Your task to perform on an android device: add a label to a message in the gmail app Image 0: 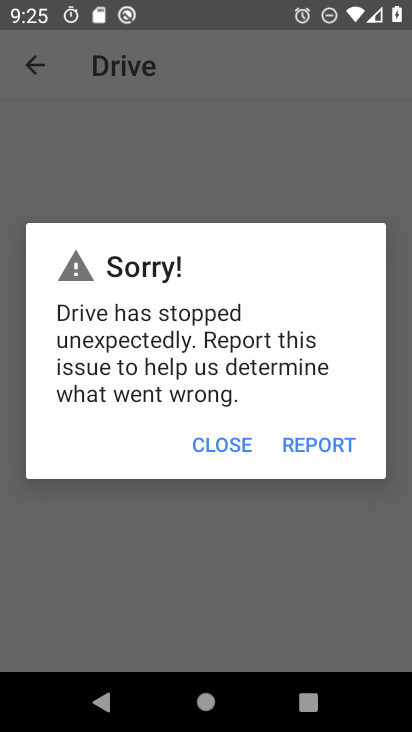
Step 0: drag from (392, 617) to (339, 20)
Your task to perform on an android device: add a label to a message in the gmail app Image 1: 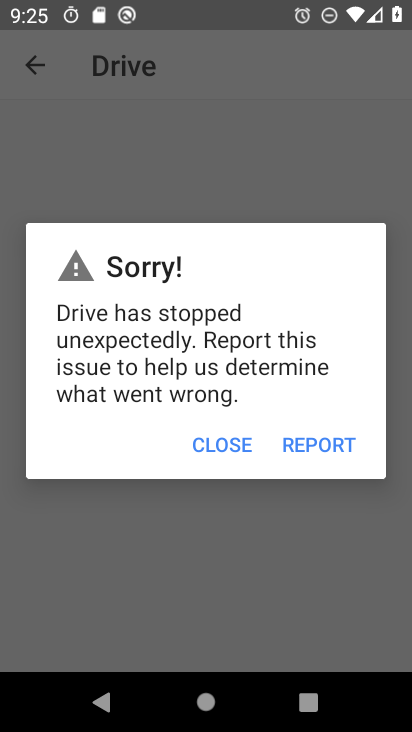
Step 1: press home button
Your task to perform on an android device: add a label to a message in the gmail app Image 2: 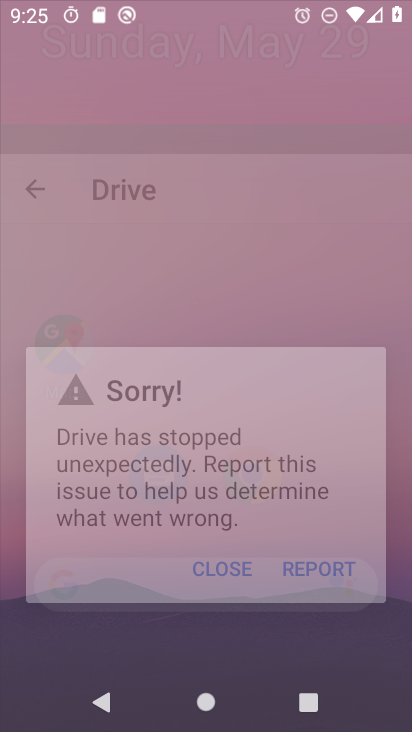
Step 2: drag from (358, 675) to (327, 11)
Your task to perform on an android device: add a label to a message in the gmail app Image 3: 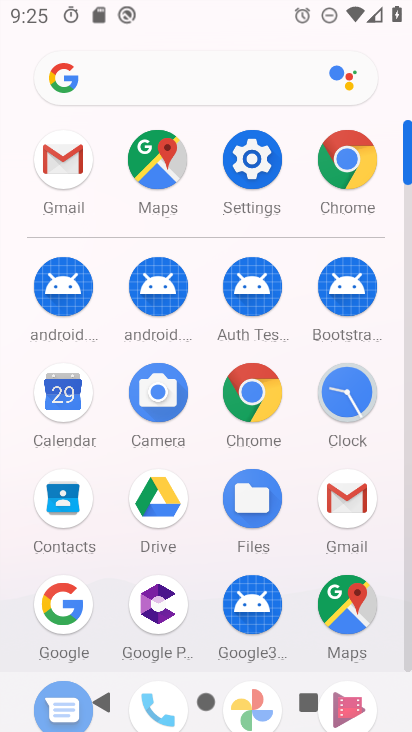
Step 3: click (350, 503)
Your task to perform on an android device: add a label to a message in the gmail app Image 4: 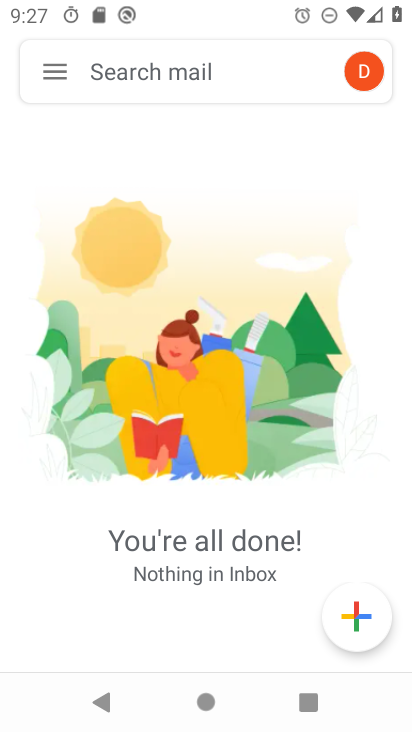
Step 4: task complete